Your task to perform on an android device: Open Chrome and go to settings Image 0: 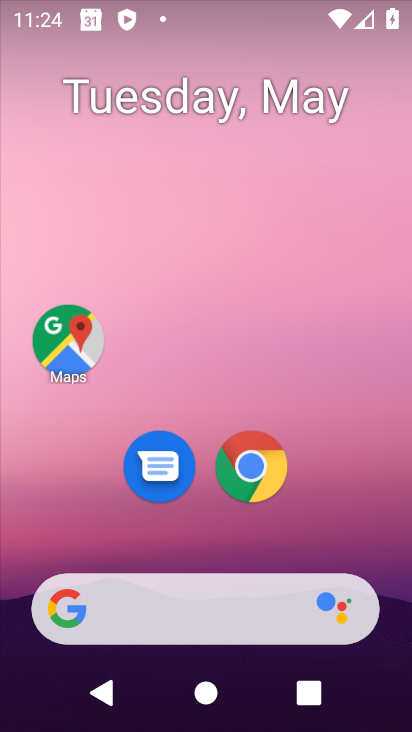
Step 0: click (256, 467)
Your task to perform on an android device: Open Chrome and go to settings Image 1: 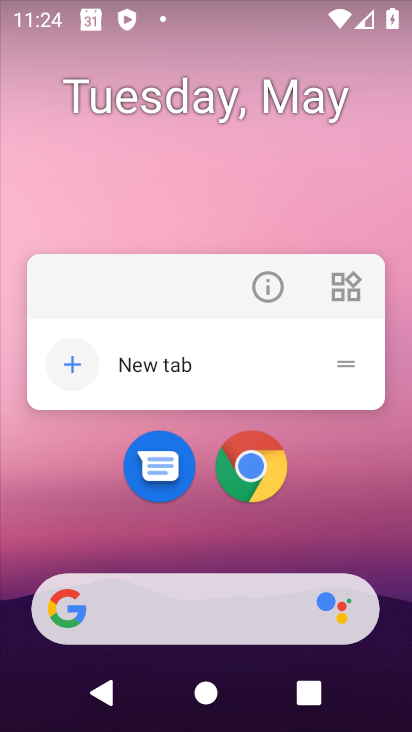
Step 1: click (261, 468)
Your task to perform on an android device: Open Chrome and go to settings Image 2: 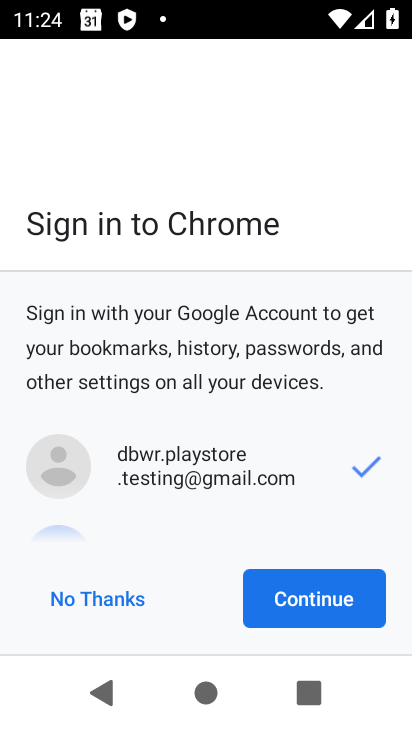
Step 2: click (315, 610)
Your task to perform on an android device: Open Chrome and go to settings Image 3: 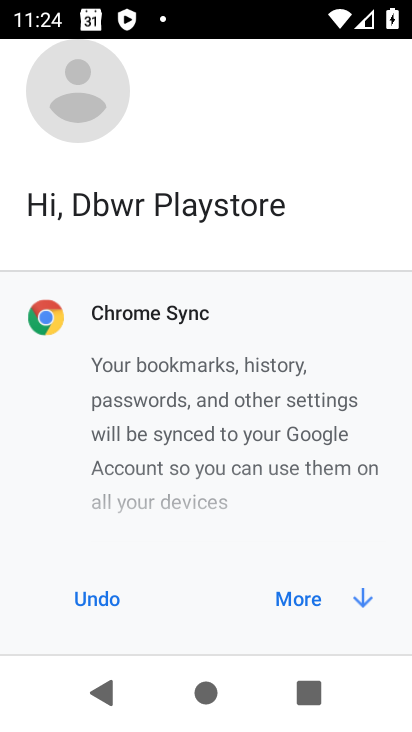
Step 3: click (315, 610)
Your task to perform on an android device: Open Chrome and go to settings Image 4: 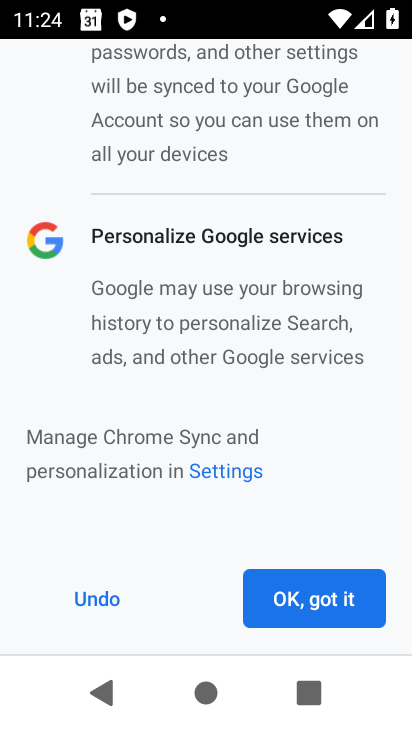
Step 4: click (280, 600)
Your task to perform on an android device: Open Chrome and go to settings Image 5: 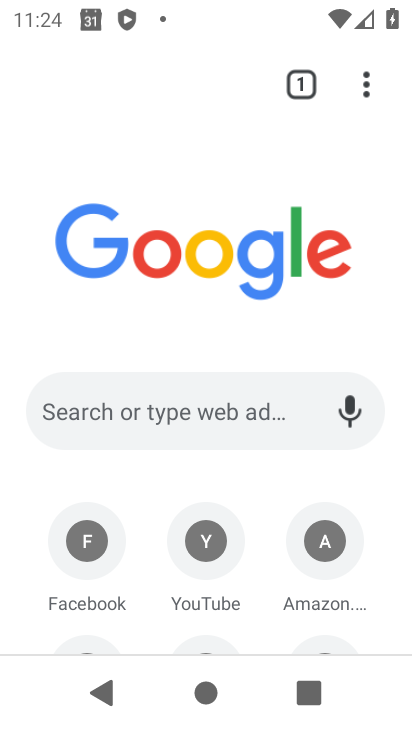
Step 5: task complete